Your task to perform on an android device: How big is the earth? Image 0: 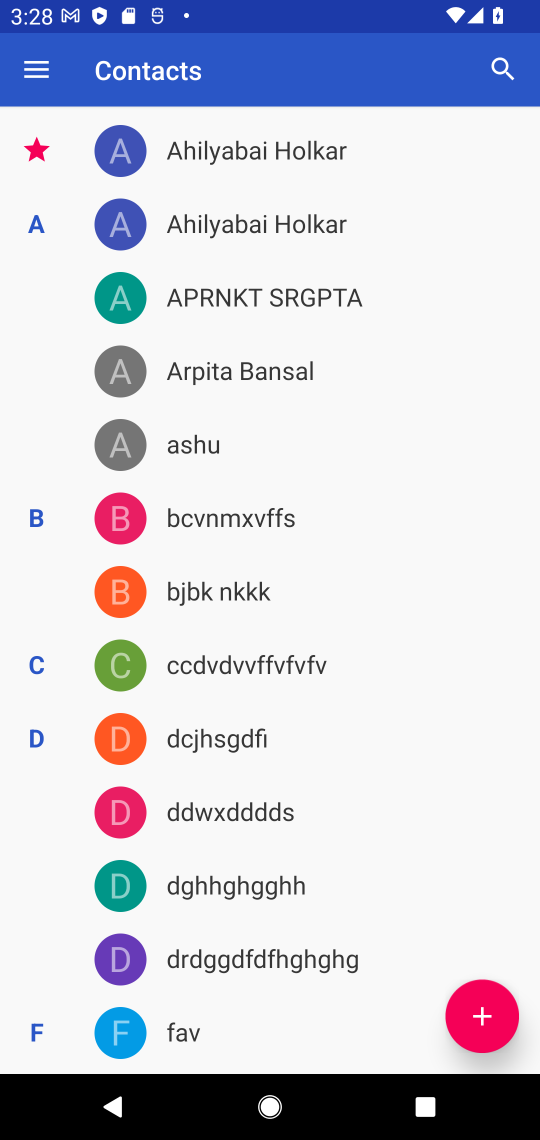
Step 0: press home button
Your task to perform on an android device: How big is the earth? Image 1: 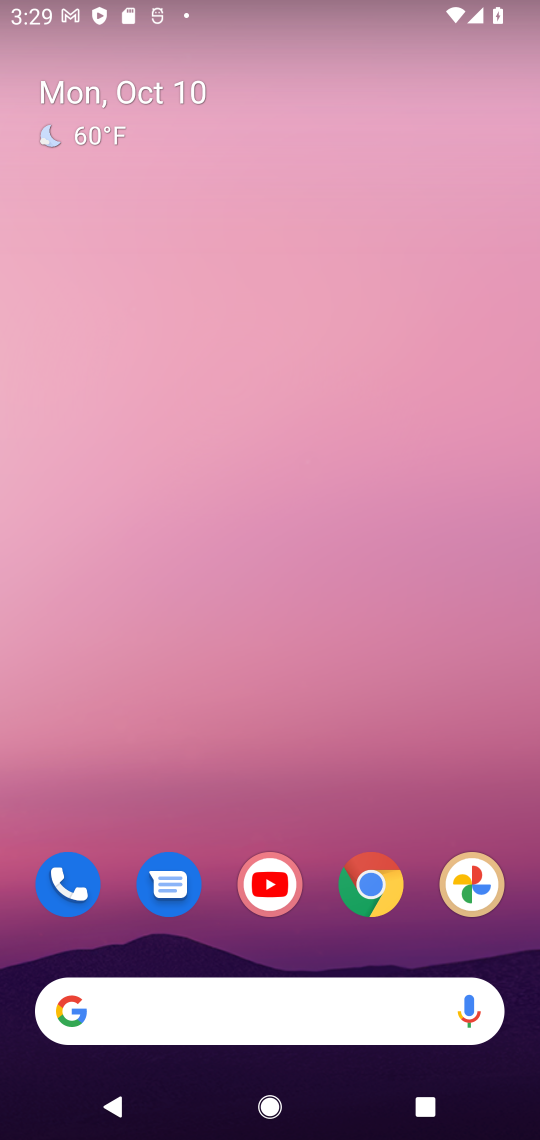
Step 1: click (365, 885)
Your task to perform on an android device: How big is the earth? Image 2: 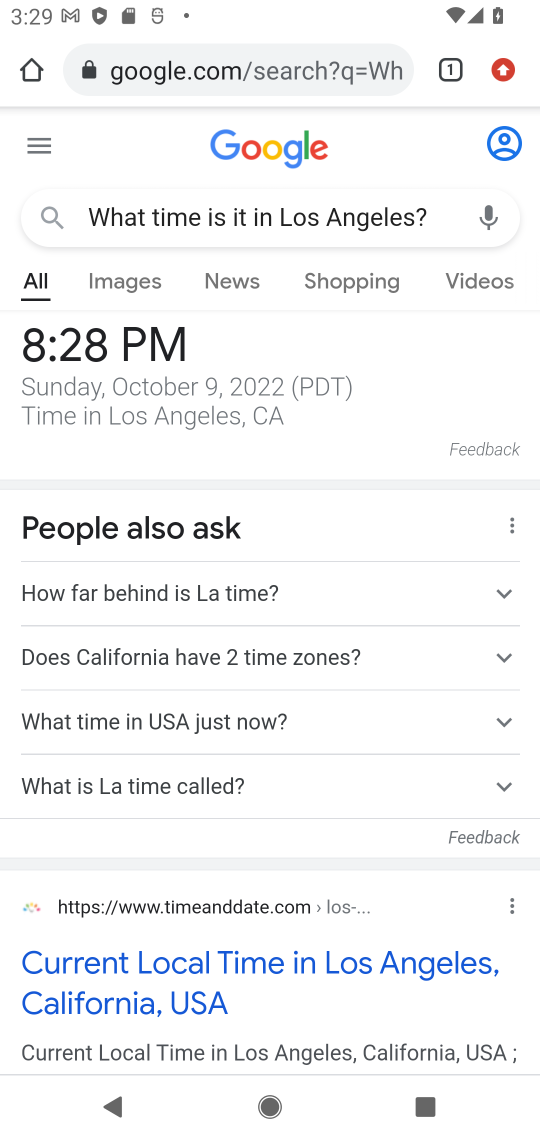
Step 2: click (366, 211)
Your task to perform on an android device: How big is the earth? Image 3: 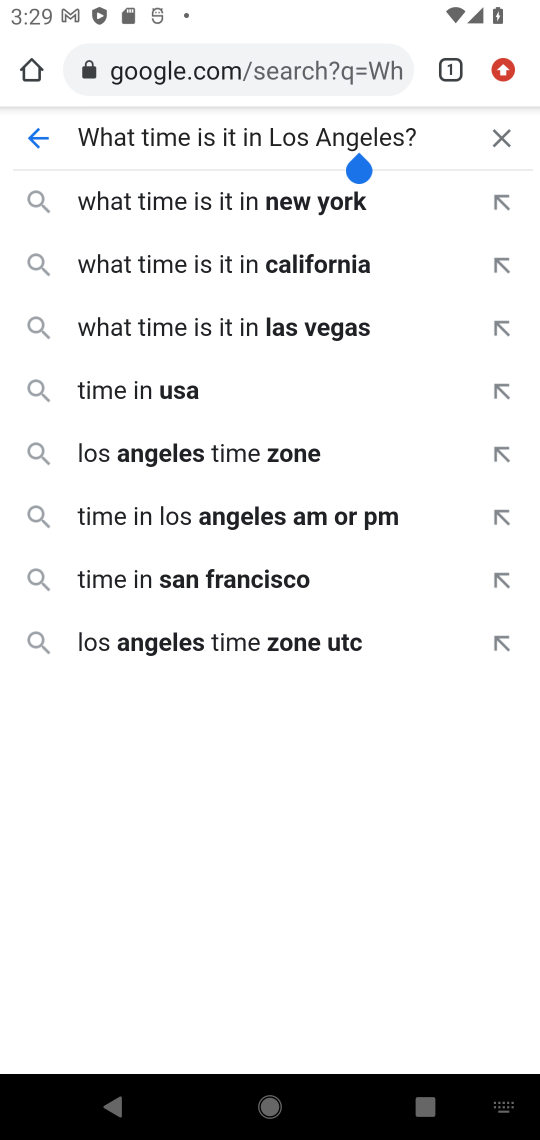
Step 3: click (496, 143)
Your task to perform on an android device: How big is the earth? Image 4: 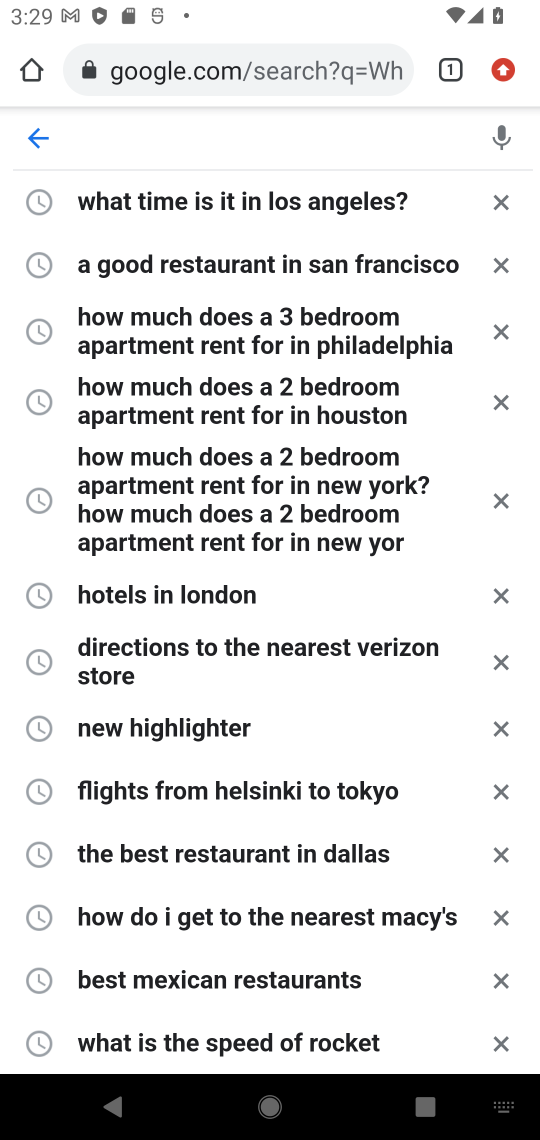
Step 4: type "How big is the earth?"
Your task to perform on an android device: How big is the earth? Image 5: 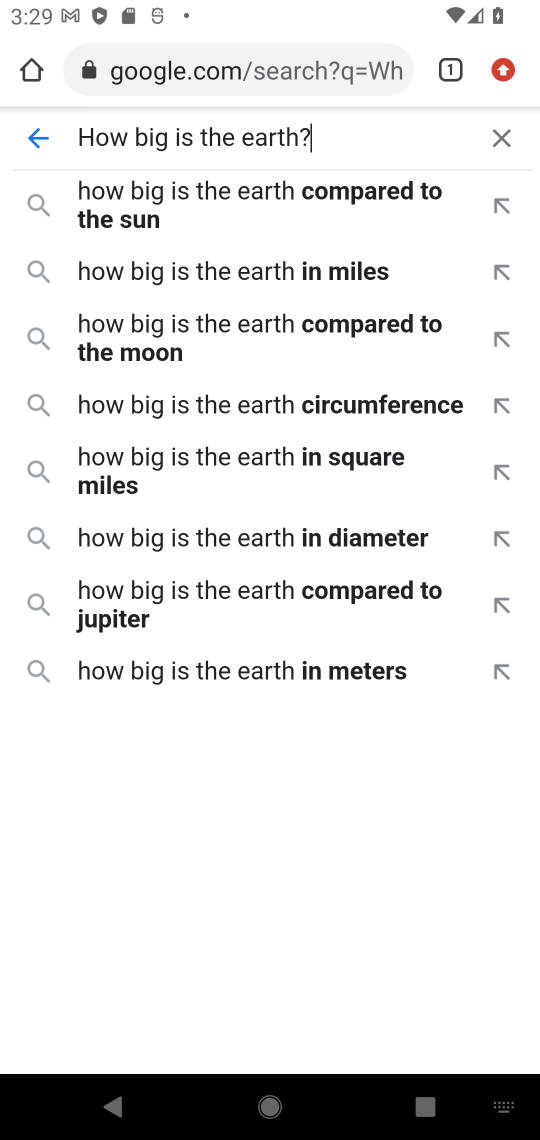
Step 5: click (218, 271)
Your task to perform on an android device: How big is the earth? Image 6: 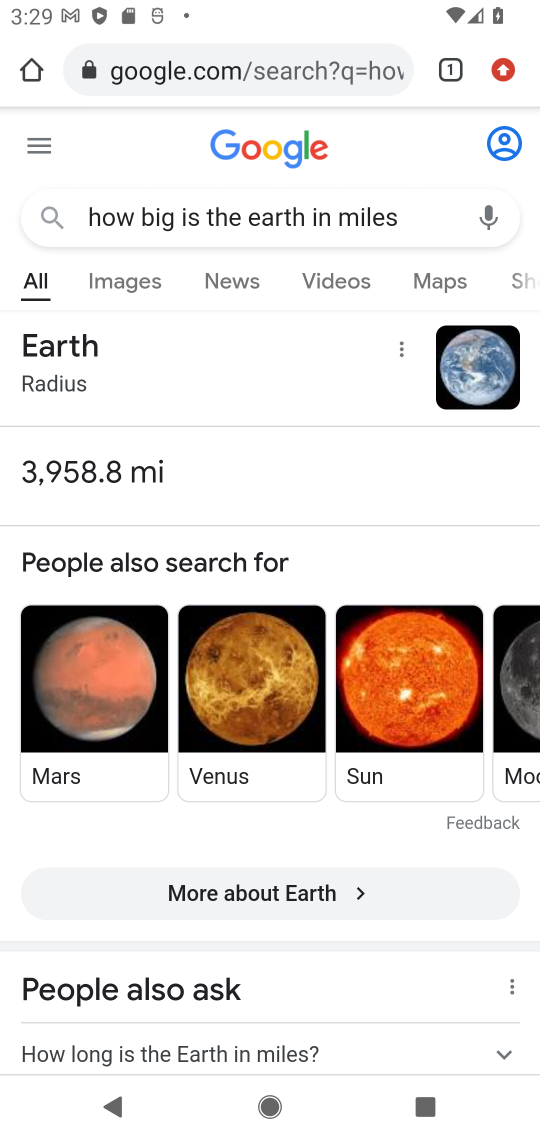
Step 6: task complete